Your task to perform on an android device: see sites visited before in the chrome app Image 0: 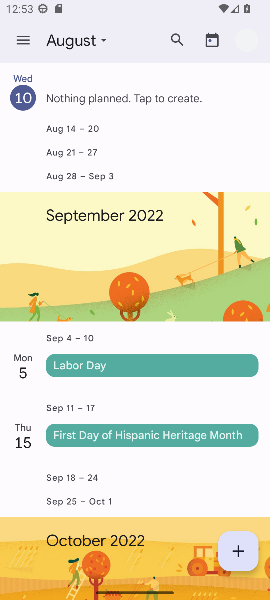
Step 0: task complete